Your task to perform on an android device: Go to accessibility settings Image 0: 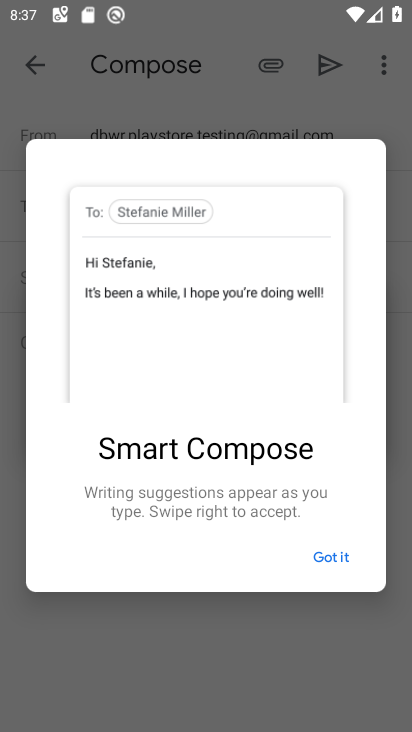
Step 0: press home button
Your task to perform on an android device: Go to accessibility settings Image 1: 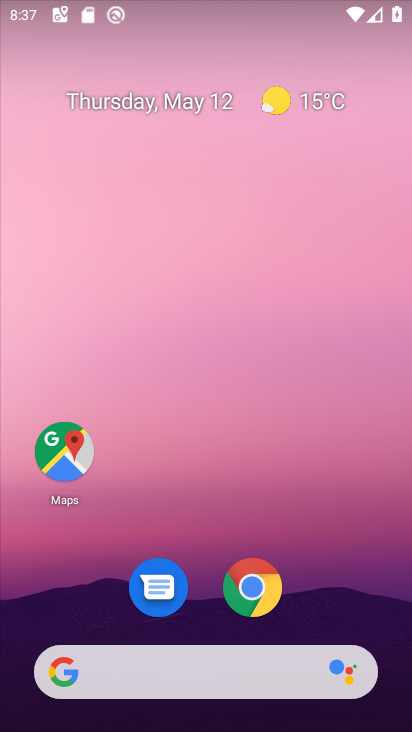
Step 1: drag from (394, 640) to (267, 70)
Your task to perform on an android device: Go to accessibility settings Image 2: 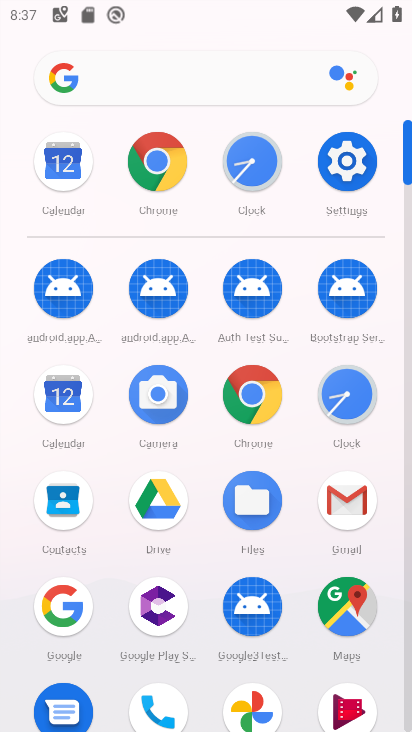
Step 2: click (344, 167)
Your task to perform on an android device: Go to accessibility settings Image 3: 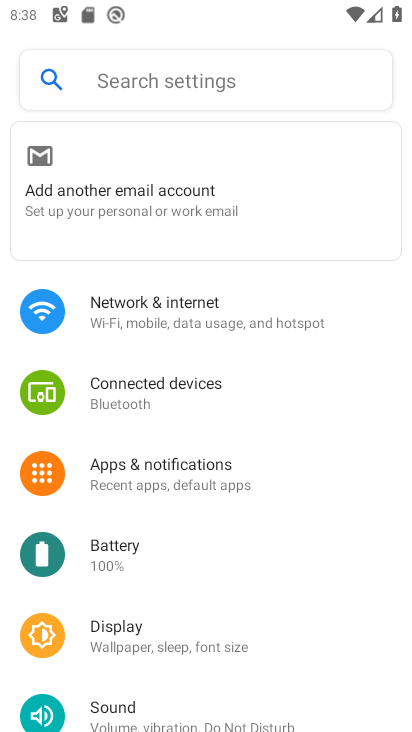
Step 3: drag from (249, 644) to (210, 99)
Your task to perform on an android device: Go to accessibility settings Image 4: 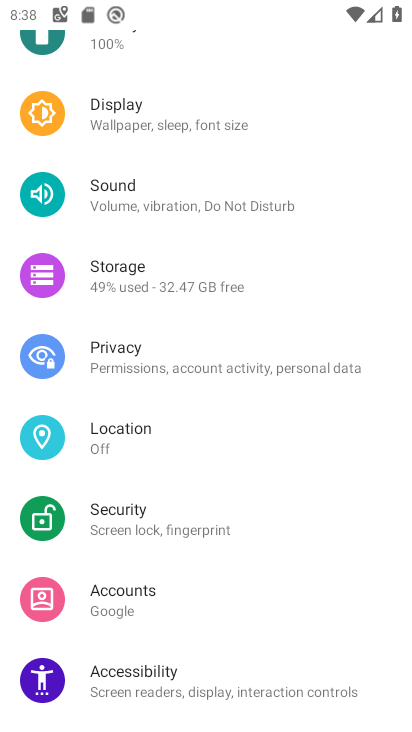
Step 4: click (201, 680)
Your task to perform on an android device: Go to accessibility settings Image 5: 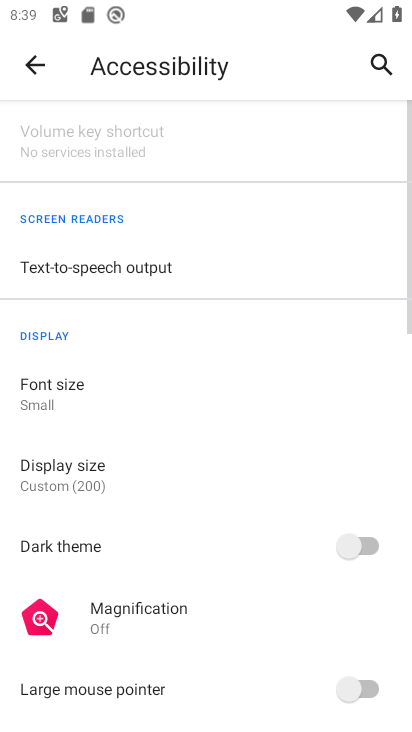
Step 5: task complete